Your task to perform on an android device: Do I have any events tomorrow? Image 0: 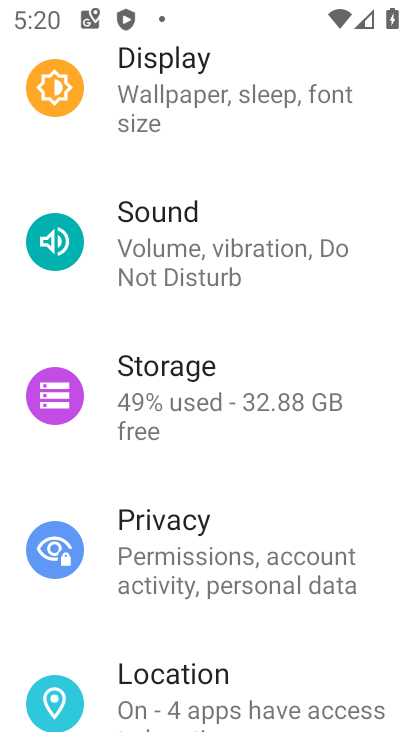
Step 0: press home button
Your task to perform on an android device: Do I have any events tomorrow? Image 1: 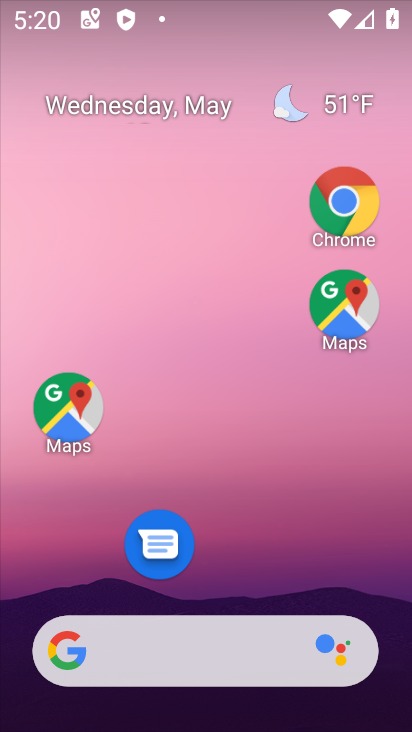
Step 1: drag from (240, 578) to (215, 232)
Your task to perform on an android device: Do I have any events tomorrow? Image 2: 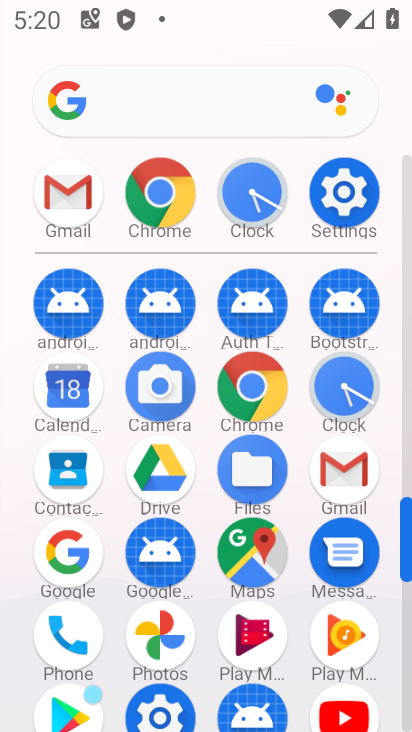
Step 2: drag from (217, 553) to (254, 303)
Your task to perform on an android device: Do I have any events tomorrow? Image 3: 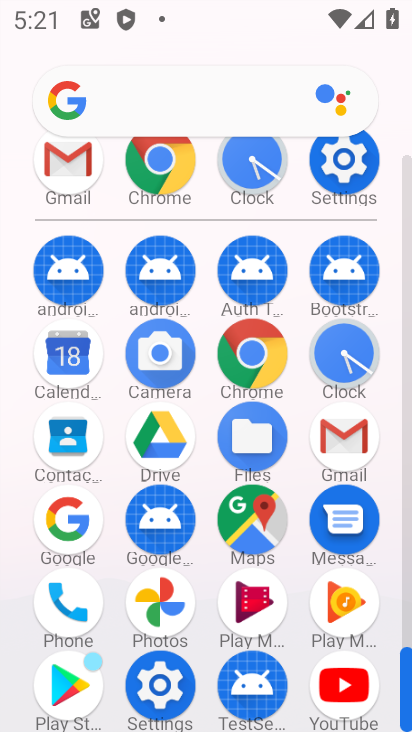
Step 3: drag from (195, 554) to (207, 354)
Your task to perform on an android device: Do I have any events tomorrow? Image 4: 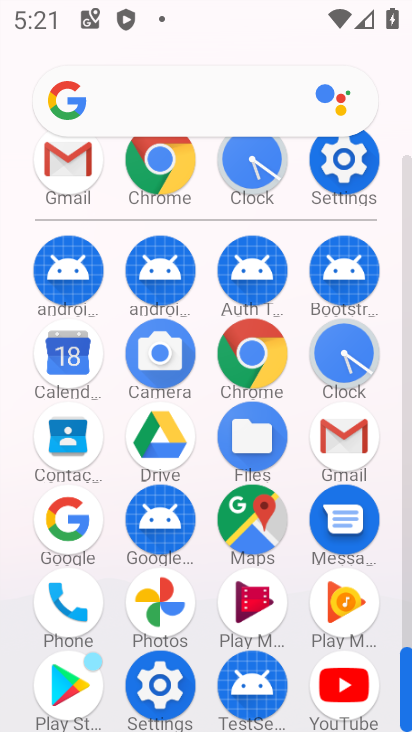
Step 4: click (78, 360)
Your task to perform on an android device: Do I have any events tomorrow? Image 5: 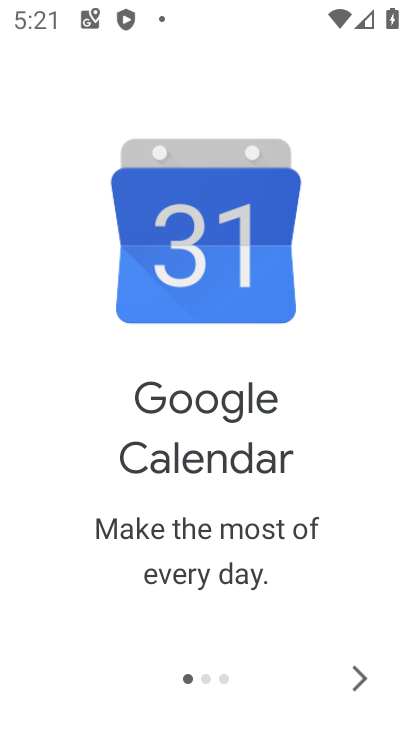
Step 5: click (351, 687)
Your task to perform on an android device: Do I have any events tomorrow? Image 6: 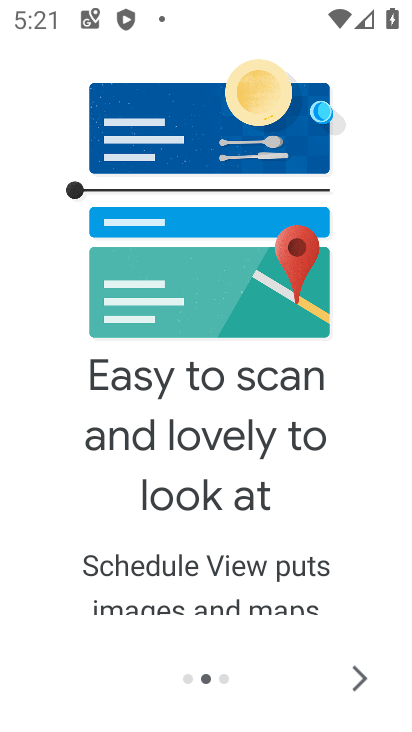
Step 6: click (351, 682)
Your task to perform on an android device: Do I have any events tomorrow? Image 7: 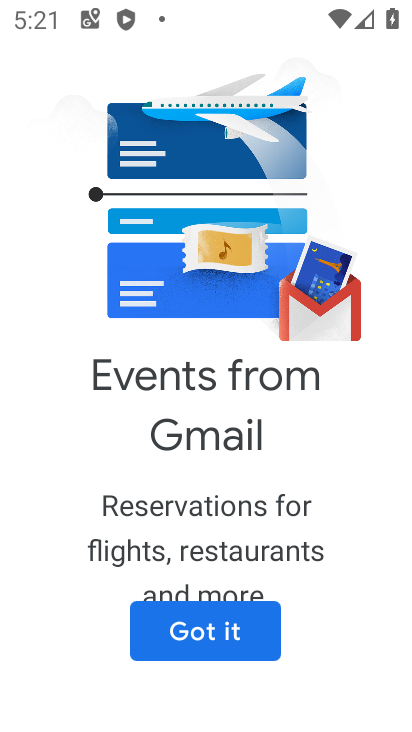
Step 7: click (195, 627)
Your task to perform on an android device: Do I have any events tomorrow? Image 8: 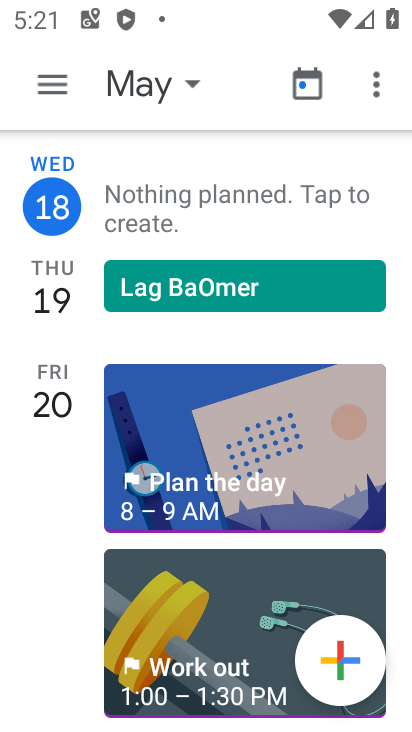
Step 8: task complete